Your task to perform on an android device: Go to network settings Image 0: 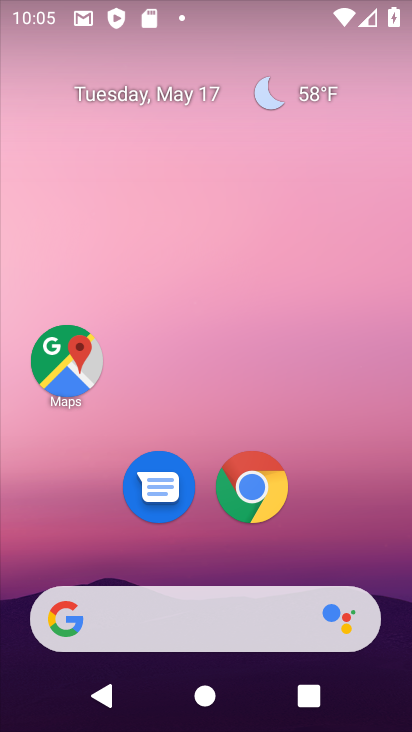
Step 0: drag from (230, 723) to (230, 151)
Your task to perform on an android device: Go to network settings Image 1: 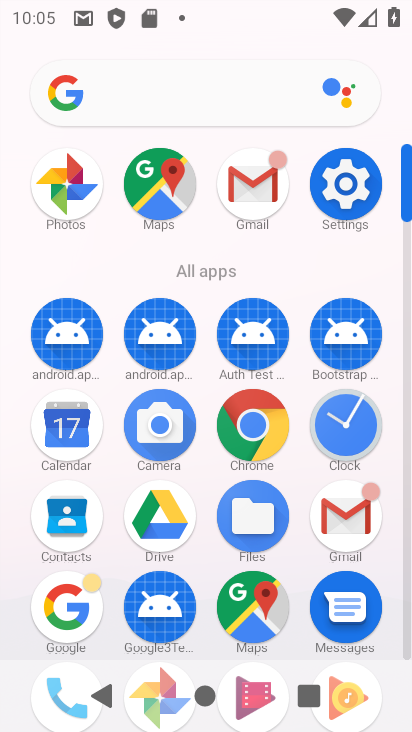
Step 1: click (334, 182)
Your task to perform on an android device: Go to network settings Image 2: 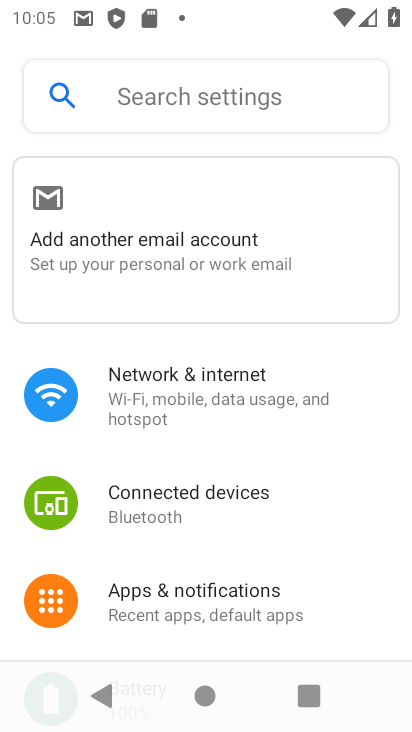
Step 2: click (146, 392)
Your task to perform on an android device: Go to network settings Image 3: 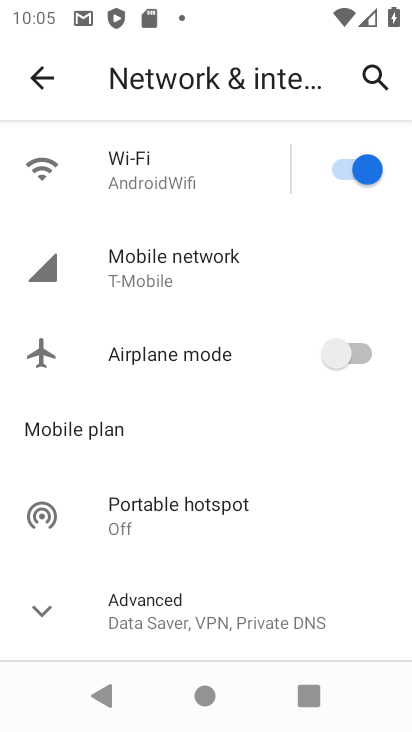
Step 3: click (120, 265)
Your task to perform on an android device: Go to network settings Image 4: 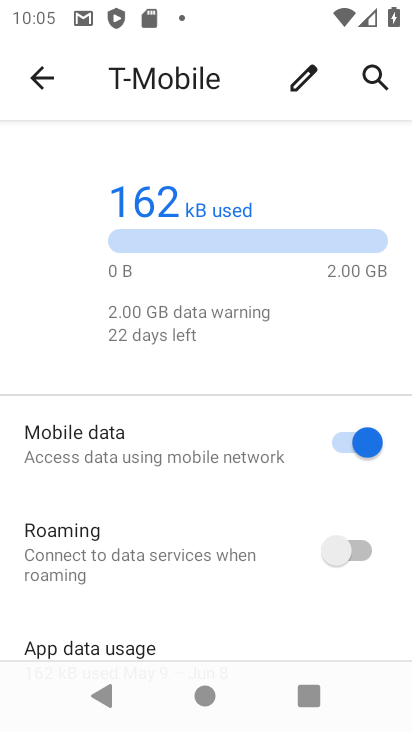
Step 4: task complete